Your task to perform on an android device: turn off picture-in-picture Image 0: 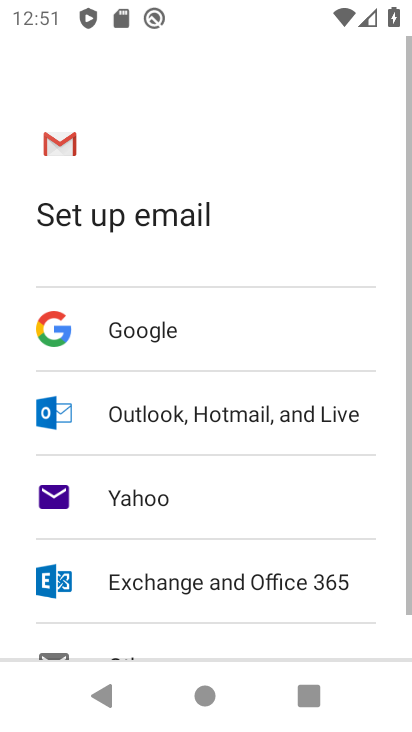
Step 0: press back button
Your task to perform on an android device: turn off picture-in-picture Image 1: 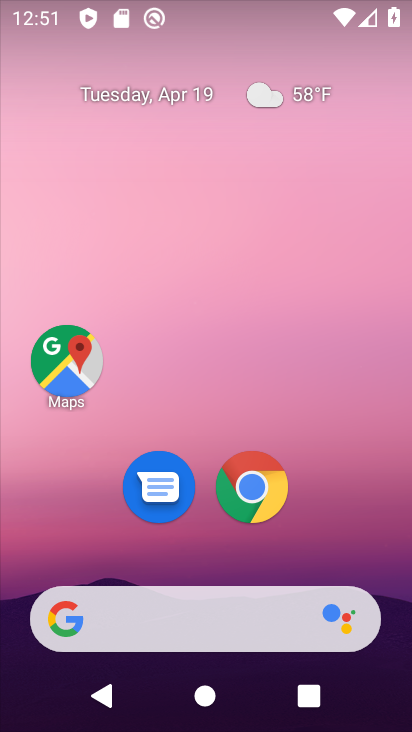
Step 1: drag from (207, 720) to (201, 36)
Your task to perform on an android device: turn off picture-in-picture Image 2: 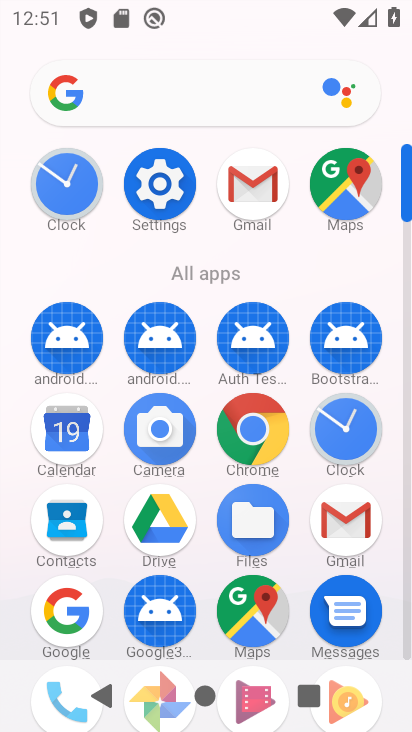
Step 2: click (171, 194)
Your task to perform on an android device: turn off picture-in-picture Image 3: 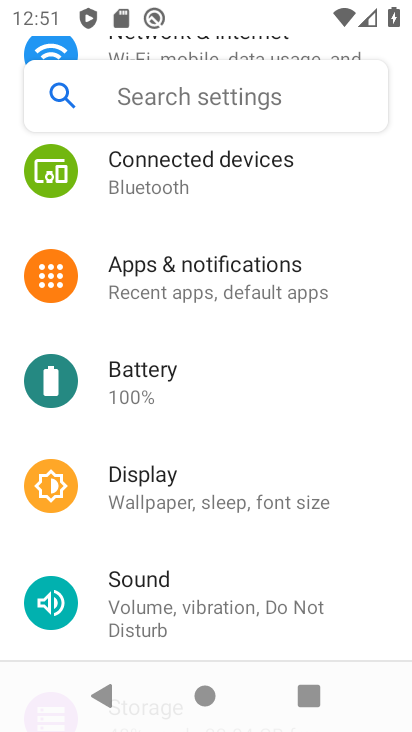
Step 3: click (245, 276)
Your task to perform on an android device: turn off picture-in-picture Image 4: 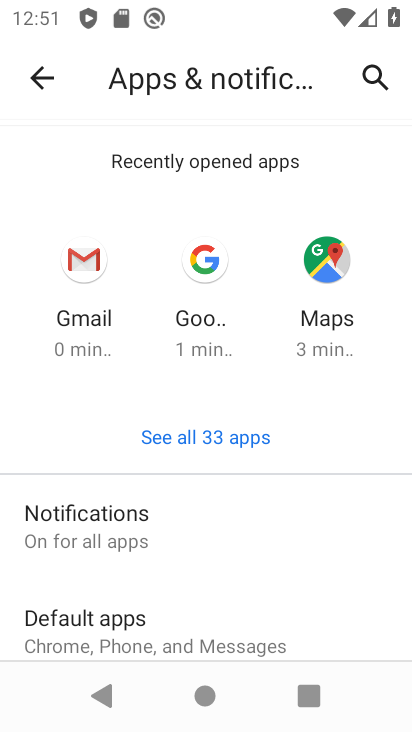
Step 4: drag from (217, 592) to (221, 125)
Your task to perform on an android device: turn off picture-in-picture Image 5: 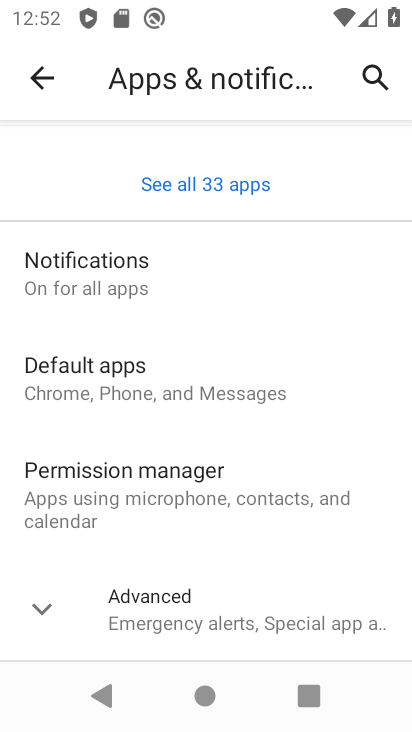
Step 5: click (134, 608)
Your task to perform on an android device: turn off picture-in-picture Image 6: 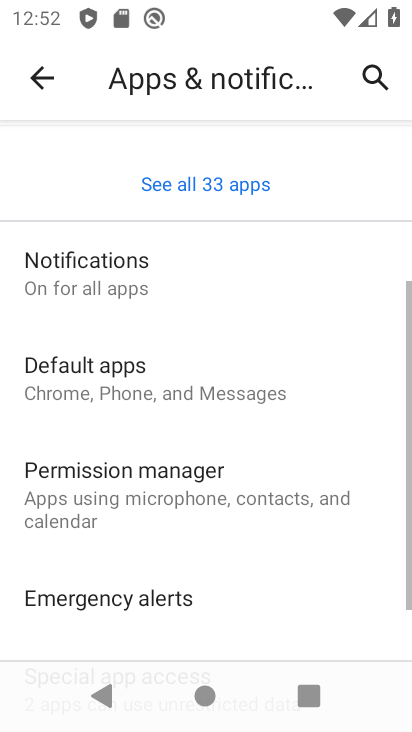
Step 6: drag from (183, 631) to (180, 144)
Your task to perform on an android device: turn off picture-in-picture Image 7: 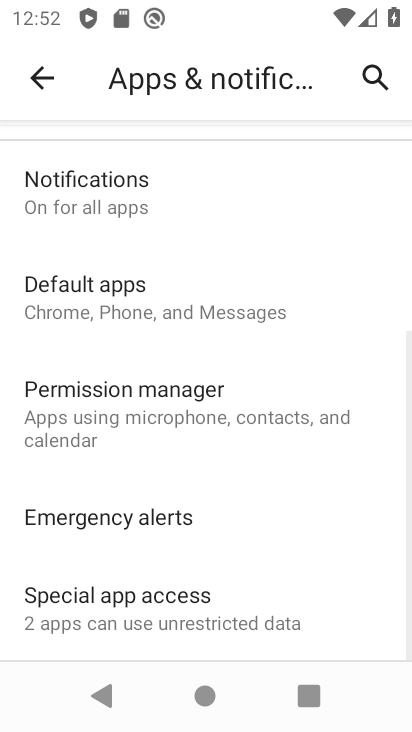
Step 7: click (131, 610)
Your task to perform on an android device: turn off picture-in-picture Image 8: 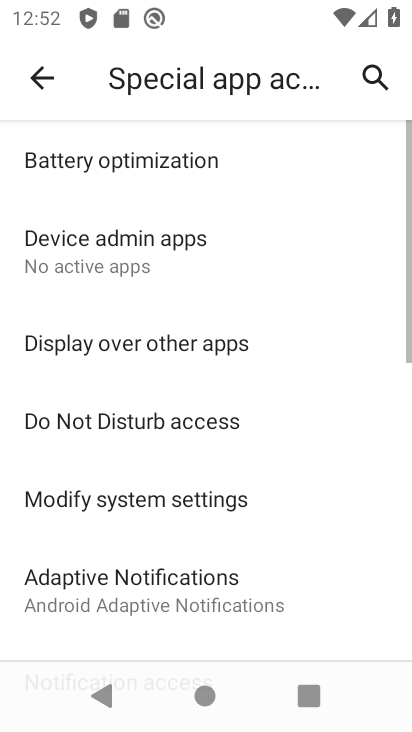
Step 8: drag from (198, 624) to (207, 223)
Your task to perform on an android device: turn off picture-in-picture Image 9: 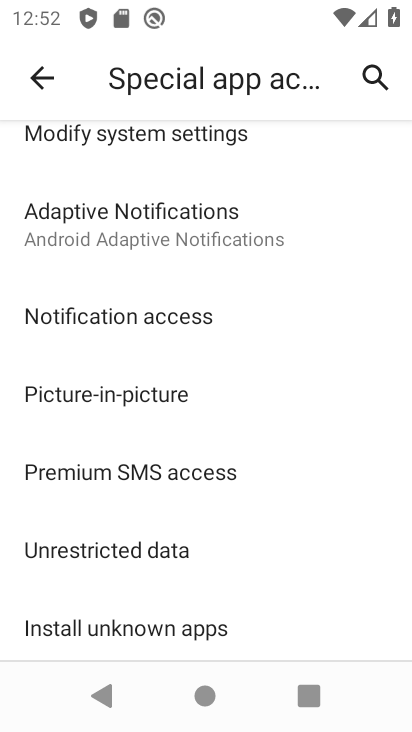
Step 9: click (91, 385)
Your task to perform on an android device: turn off picture-in-picture Image 10: 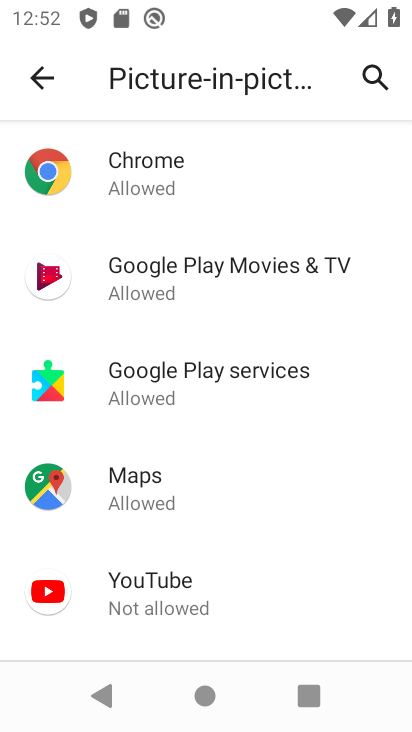
Step 10: click (120, 578)
Your task to perform on an android device: turn off picture-in-picture Image 11: 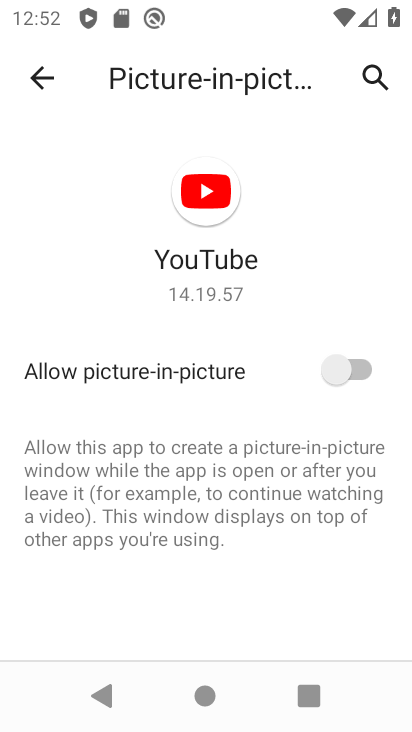
Step 11: task complete